Your task to perform on an android device: Open accessibility settings Image 0: 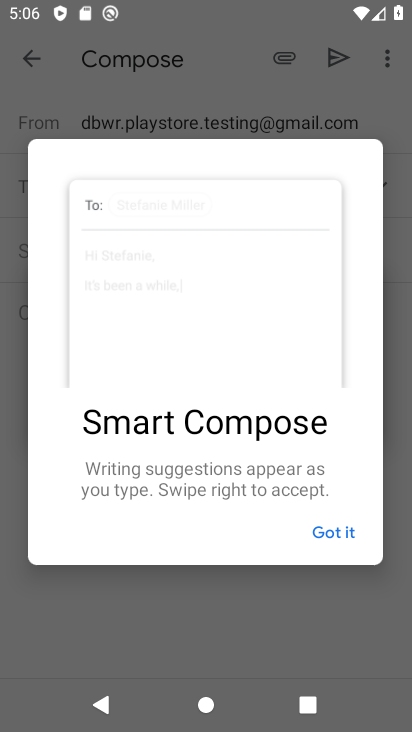
Step 0: press home button
Your task to perform on an android device: Open accessibility settings Image 1: 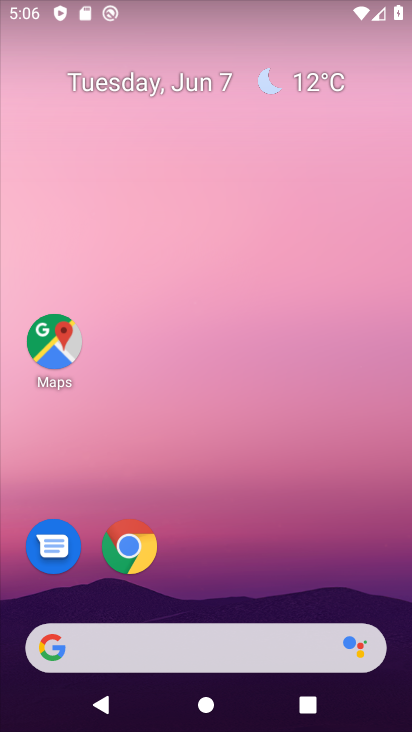
Step 1: drag from (227, 587) to (282, 51)
Your task to perform on an android device: Open accessibility settings Image 2: 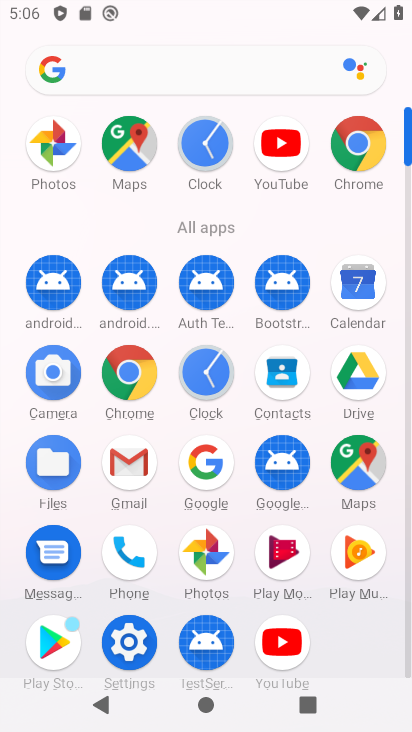
Step 2: click (134, 629)
Your task to perform on an android device: Open accessibility settings Image 3: 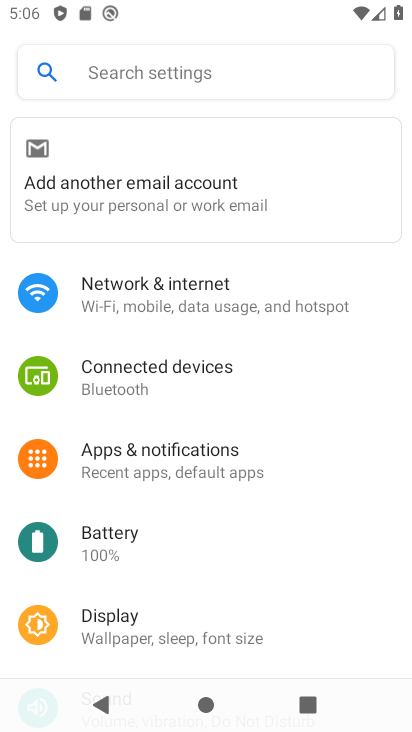
Step 3: drag from (251, 587) to (271, 193)
Your task to perform on an android device: Open accessibility settings Image 4: 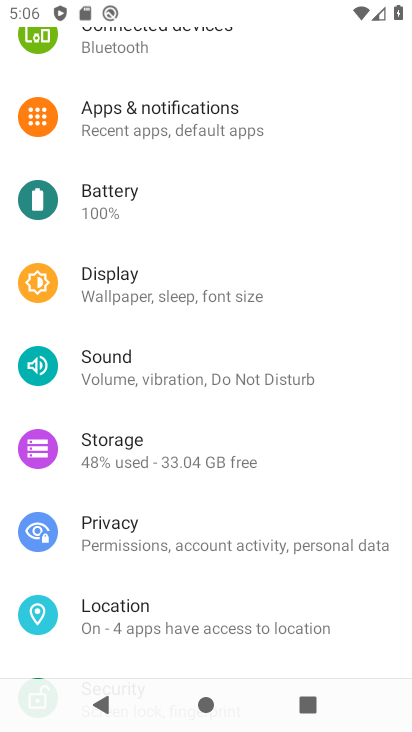
Step 4: drag from (173, 536) to (185, 154)
Your task to perform on an android device: Open accessibility settings Image 5: 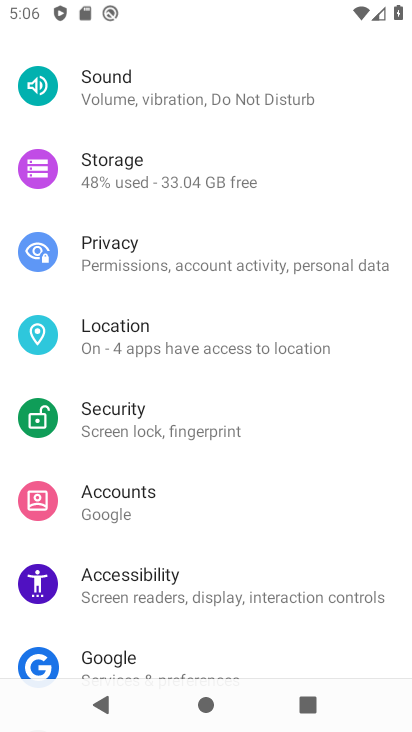
Step 5: drag from (231, 577) to (277, 198)
Your task to perform on an android device: Open accessibility settings Image 6: 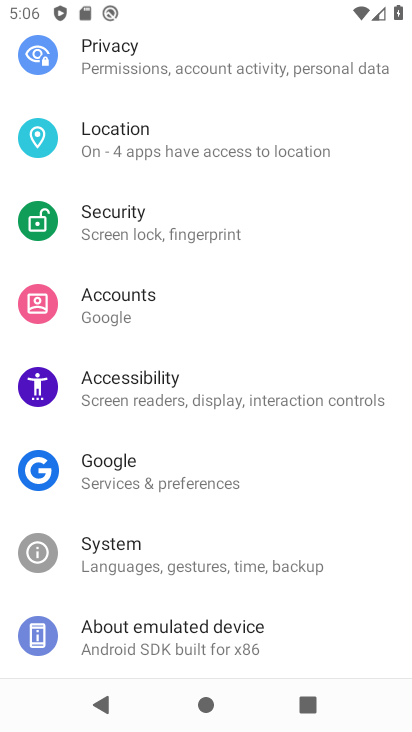
Step 6: click (129, 396)
Your task to perform on an android device: Open accessibility settings Image 7: 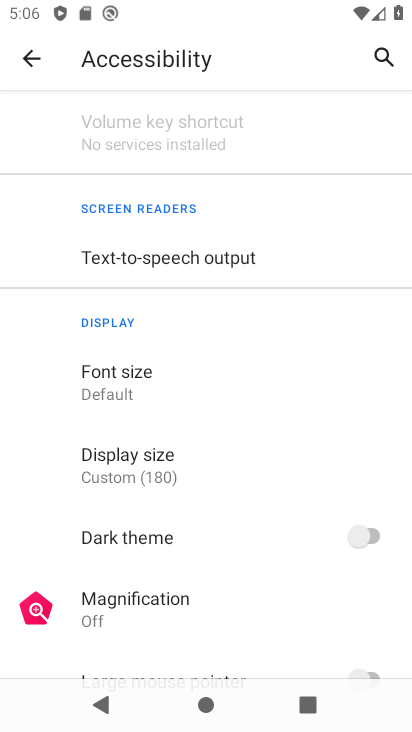
Step 7: task complete